Your task to perform on an android device: Open settings Image 0: 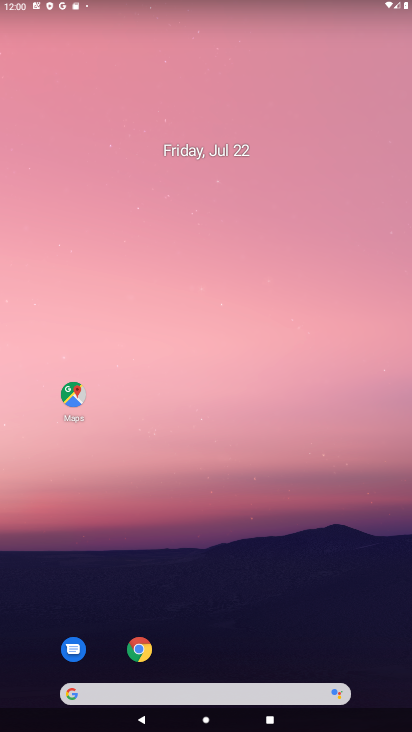
Step 0: drag from (228, 698) to (223, 257)
Your task to perform on an android device: Open settings Image 1: 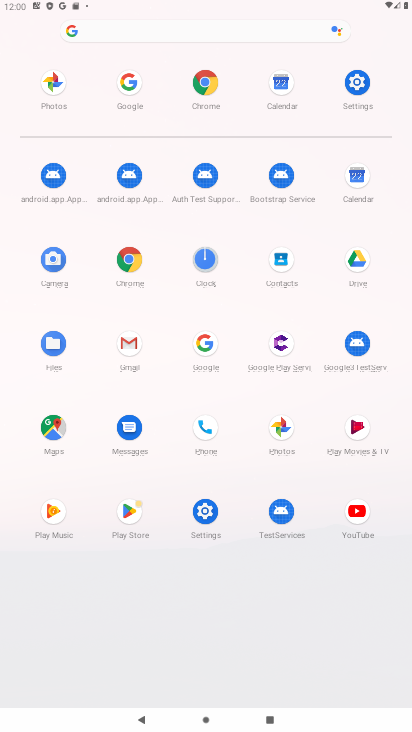
Step 1: click (359, 83)
Your task to perform on an android device: Open settings Image 2: 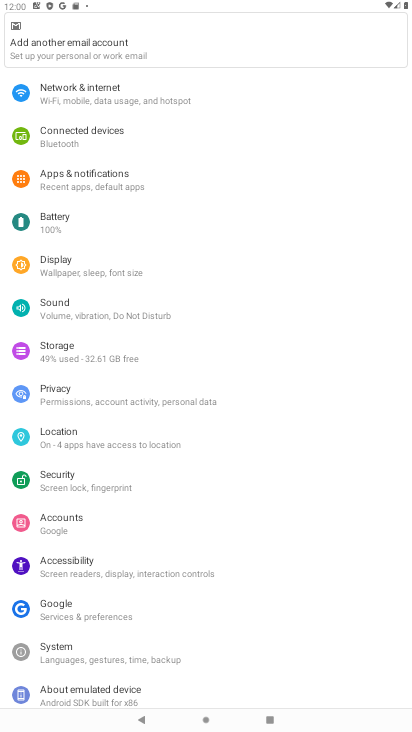
Step 2: task complete